Your task to perform on an android device: Open calendar and show me the first week of next month Image 0: 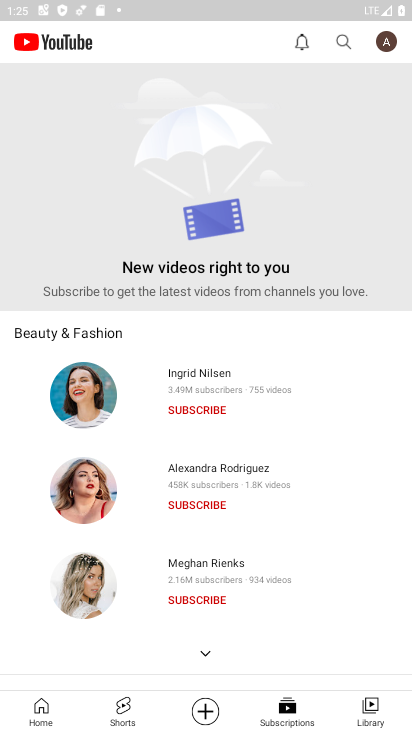
Step 0: press home button
Your task to perform on an android device: Open calendar and show me the first week of next month Image 1: 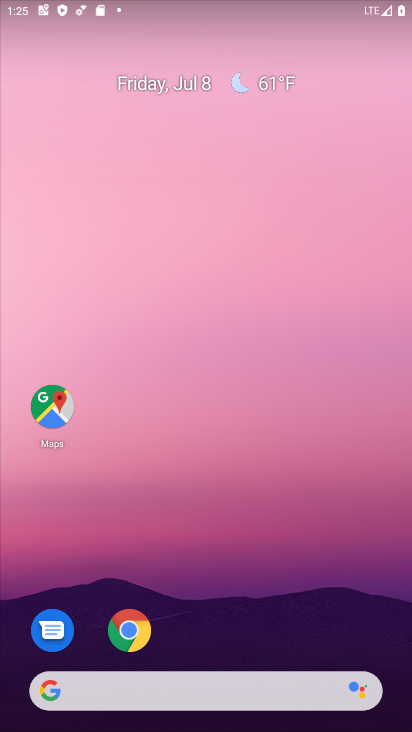
Step 1: drag from (388, 661) to (236, 135)
Your task to perform on an android device: Open calendar and show me the first week of next month Image 2: 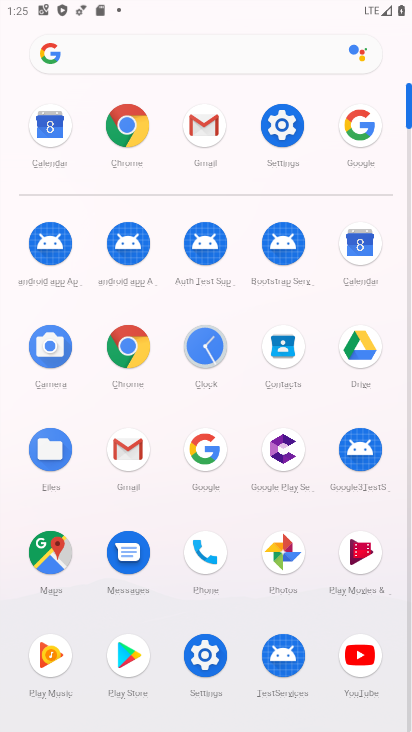
Step 2: click (343, 266)
Your task to perform on an android device: Open calendar and show me the first week of next month Image 3: 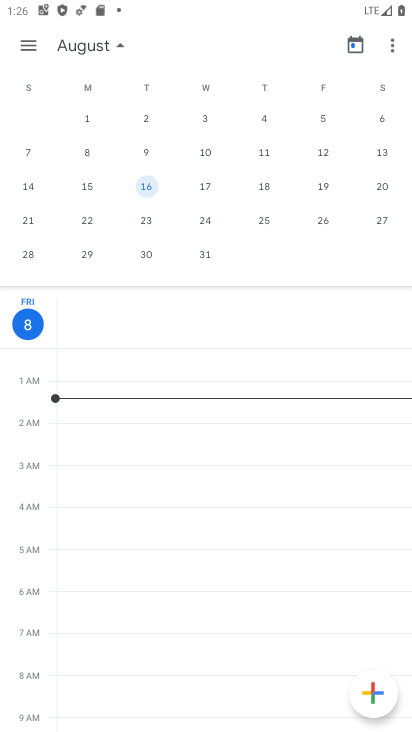
Step 3: drag from (385, 199) to (2, 147)
Your task to perform on an android device: Open calendar and show me the first week of next month Image 4: 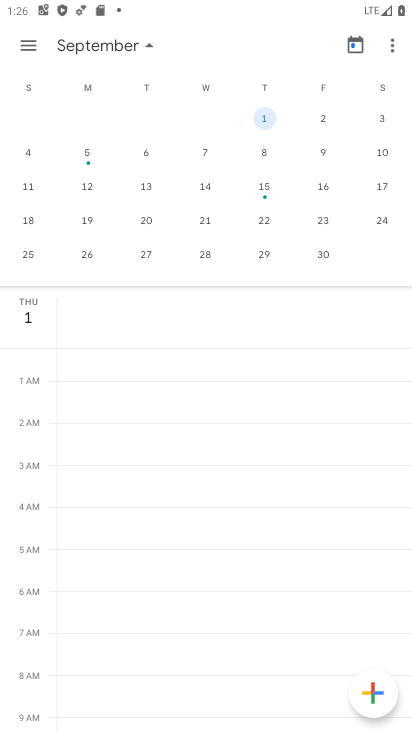
Step 4: click (202, 151)
Your task to perform on an android device: Open calendar and show me the first week of next month Image 5: 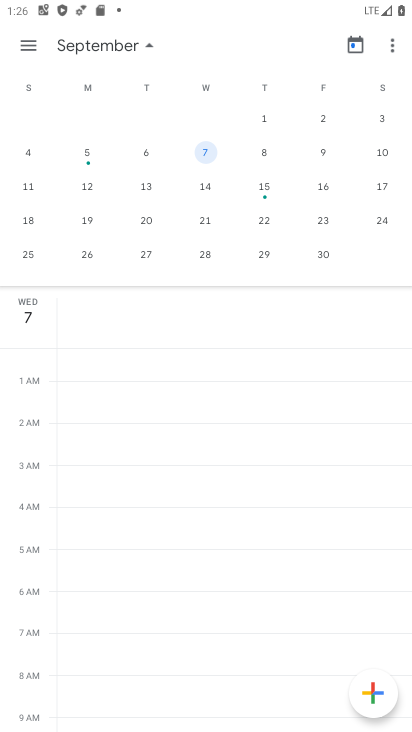
Step 5: task complete